Your task to perform on an android device: Go to network settings Image 0: 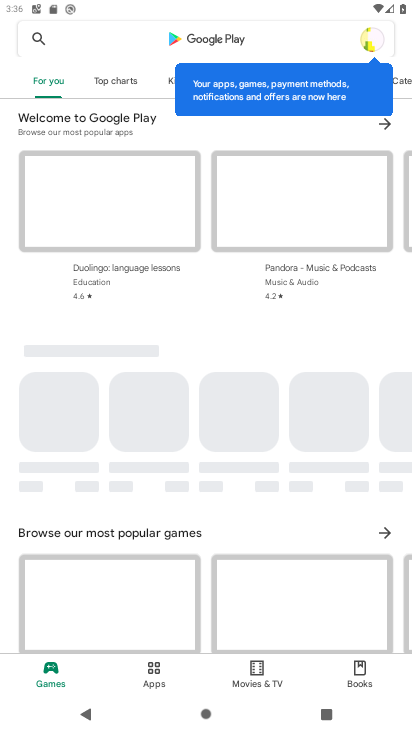
Step 0: press home button
Your task to perform on an android device: Go to network settings Image 1: 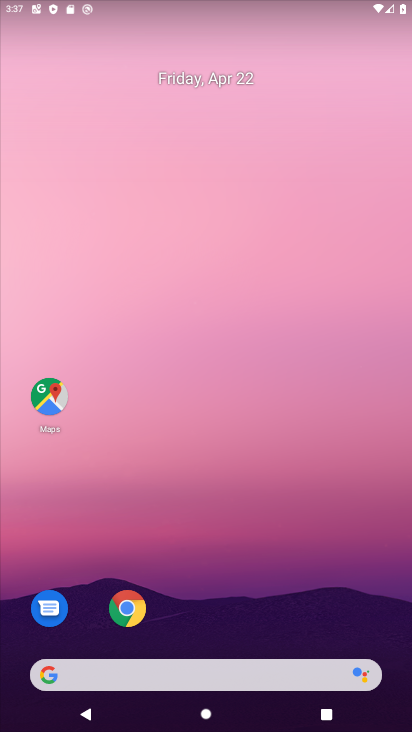
Step 1: drag from (192, 635) to (156, 252)
Your task to perform on an android device: Go to network settings Image 2: 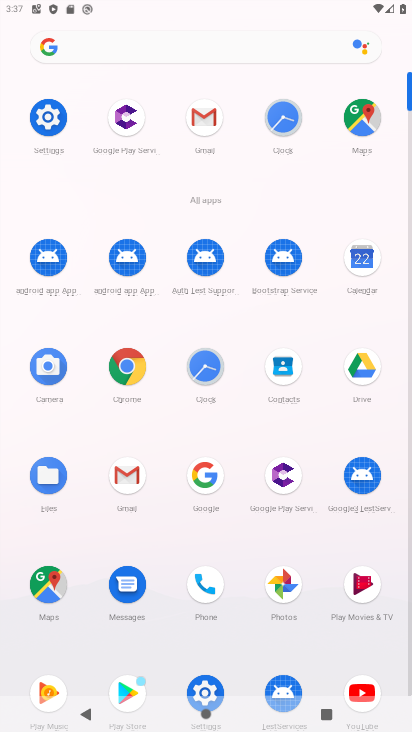
Step 2: click (57, 107)
Your task to perform on an android device: Go to network settings Image 3: 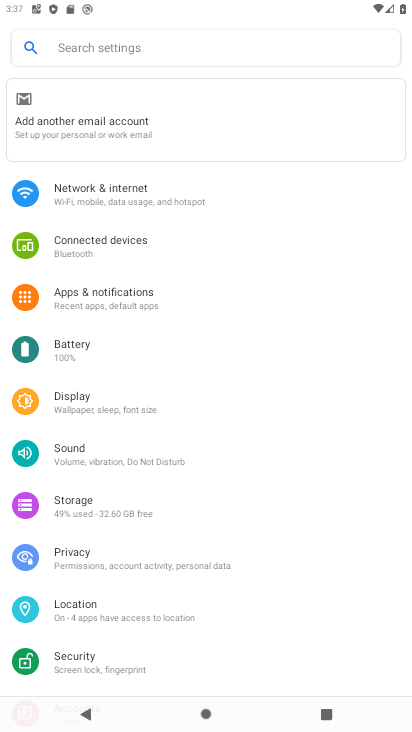
Step 3: click (111, 180)
Your task to perform on an android device: Go to network settings Image 4: 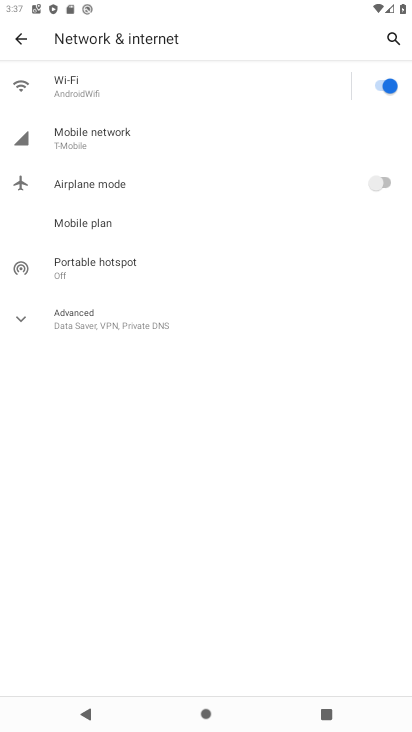
Step 4: task complete